Your task to perform on an android device: Open eBay Image 0: 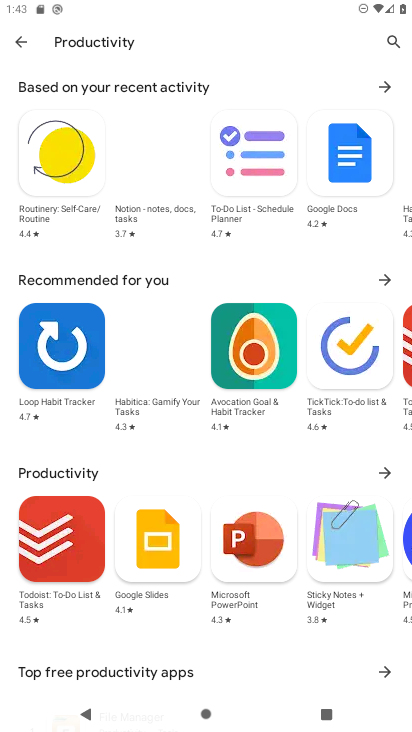
Step 0: press home button
Your task to perform on an android device: Open eBay Image 1: 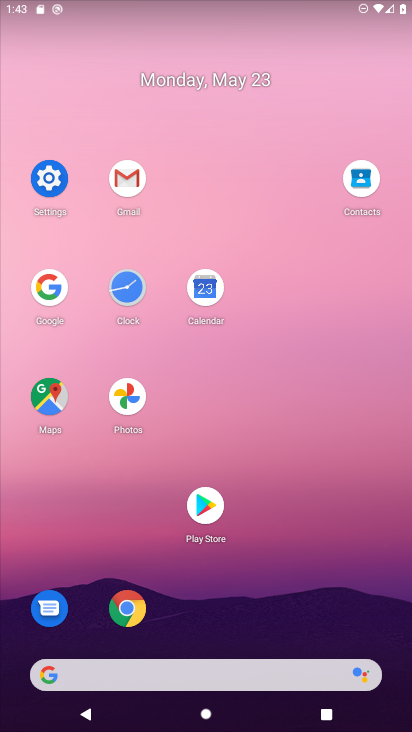
Step 1: click (140, 618)
Your task to perform on an android device: Open eBay Image 2: 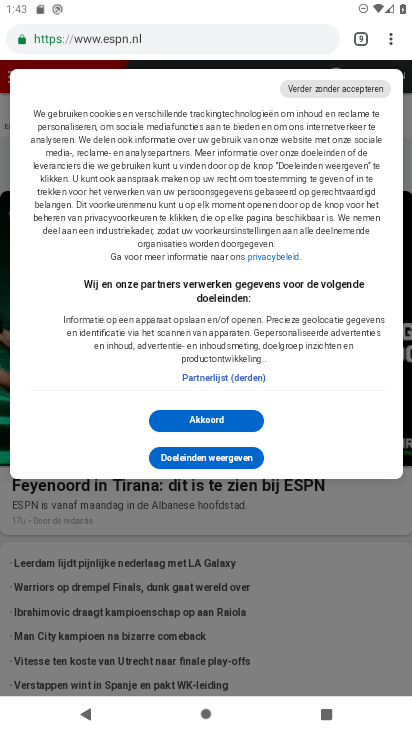
Step 2: click (366, 38)
Your task to perform on an android device: Open eBay Image 3: 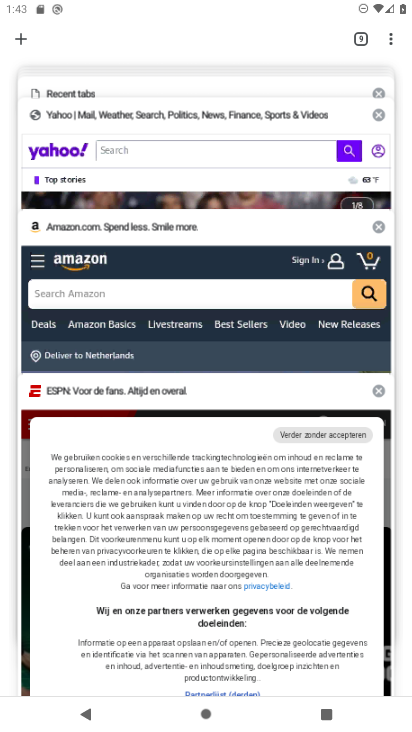
Step 3: drag from (211, 229) to (234, 455)
Your task to perform on an android device: Open eBay Image 4: 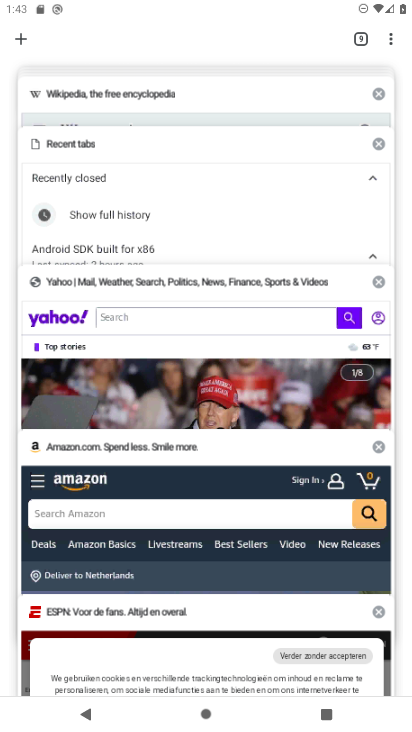
Step 4: drag from (201, 133) to (229, 506)
Your task to perform on an android device: Open eBay Image 5: 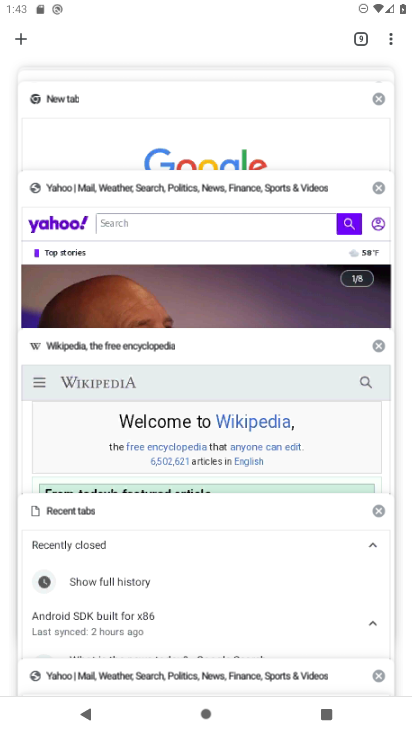
Step 5: drag from (181, 190) to (211, 521)
Your task to perform on an android device: Open eBay Image 6: 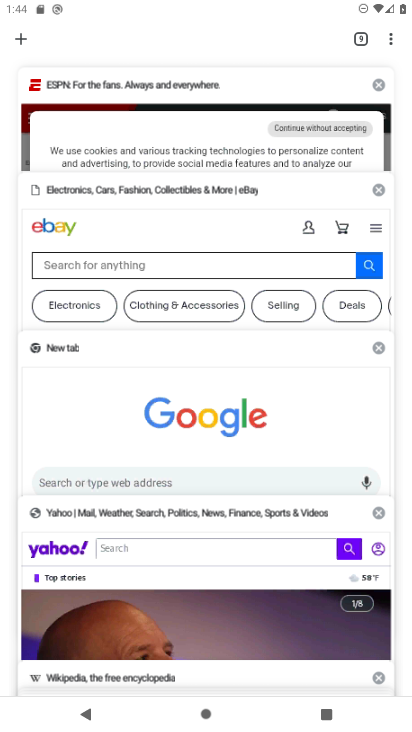
Step 6: click (112, 204)
Your task to perform on an android device: Open eBay Image 7: 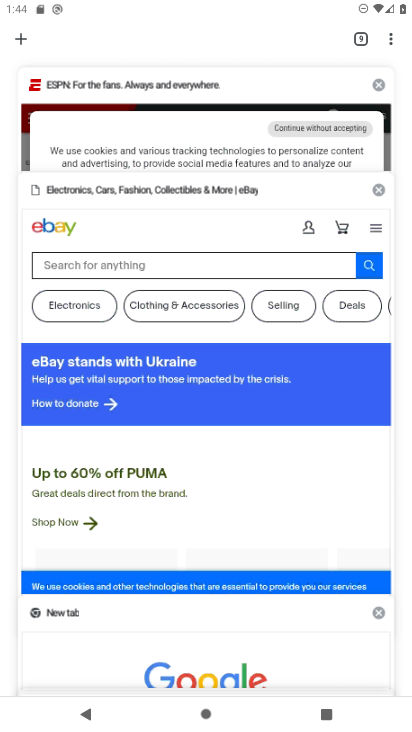
Step 7: click (160, 235)
Your task to perform on an android device: Open eBay Image 8: 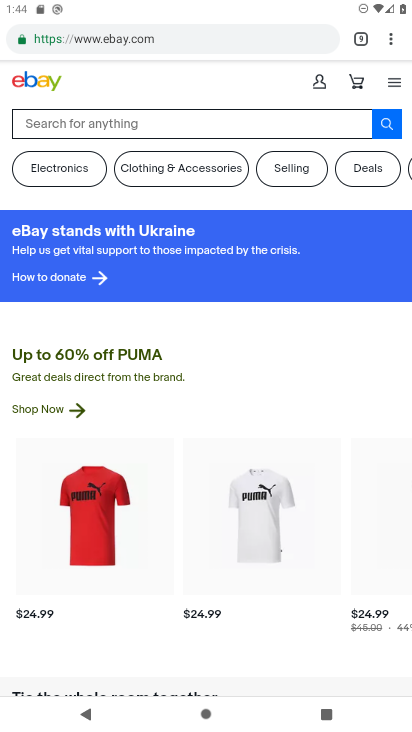
Step 8: task complete